Your task to perform on an android device: Play the last video I watched on Youtube Image 0: 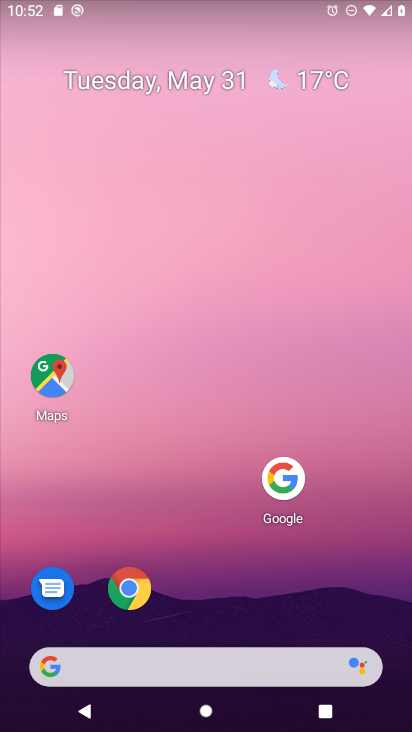
Step 0: drag from (212, 668) to (307, 181)
Your task to perform on an android device: Play the last video I watched on Youtube Image 1: 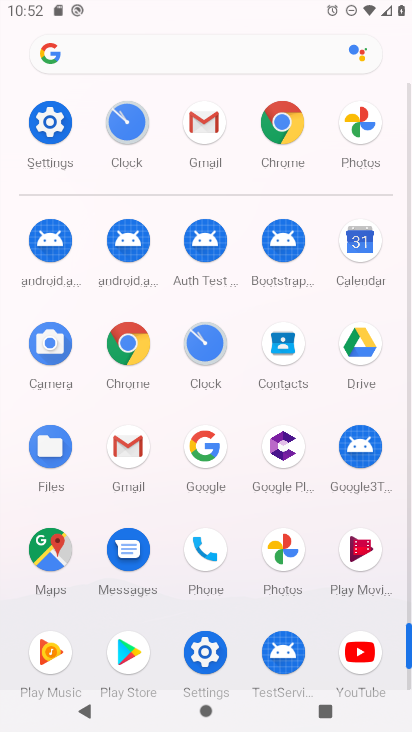
Step 1: click (358, 652)
Your task to perform on an android device: Play the last video I watched on Youtube Image 2: 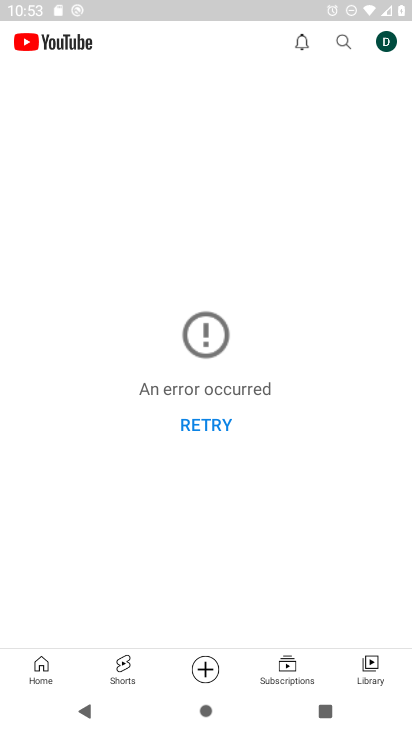
Step 2: click (220, 420)
Your task to perform on an android device: Play the last video I watched on Youtube Image 3: 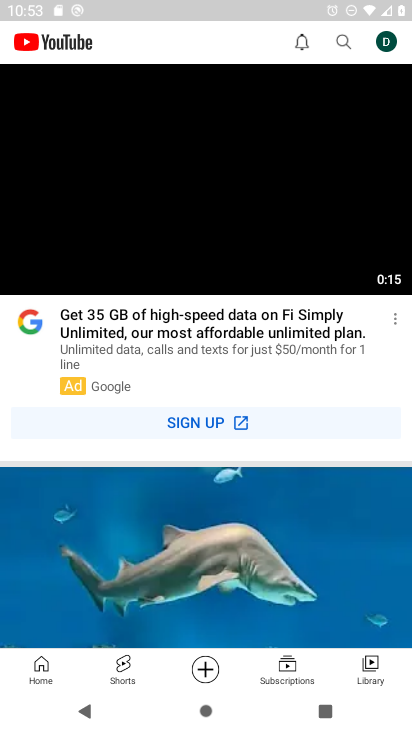
Step 3: click (371, 666)
Your task to perform on an android device: Play the last video I watched on Youtube Image 4: 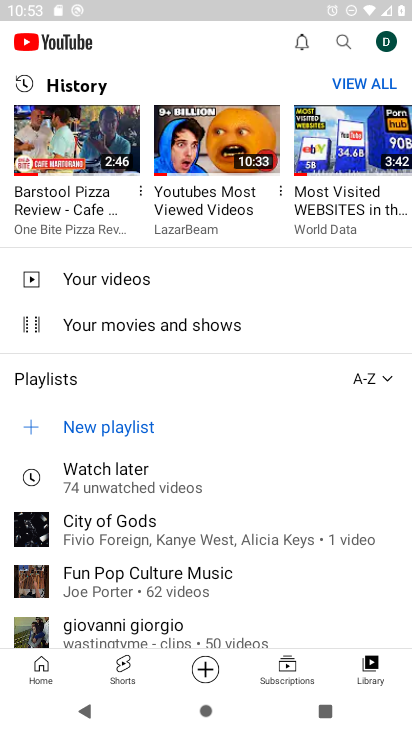
Step 4: click (49, 128)
Your task to perform on an android device: Play the last video I watched on Youtube Image 5: 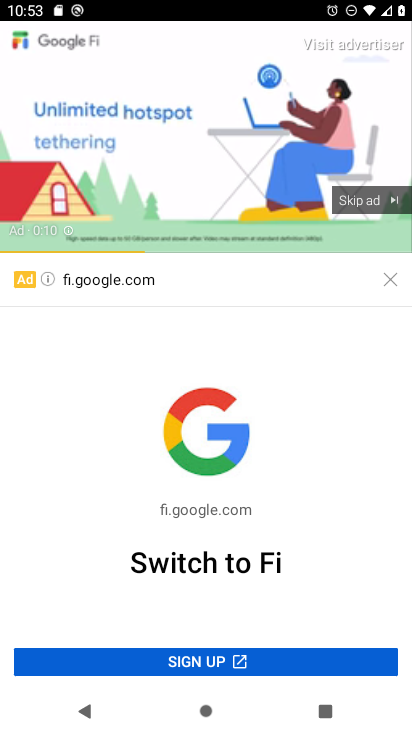
Step 5: click (392, 280)
Your task to perform on an android device: Play the last video I watched on Youtube Image 6: 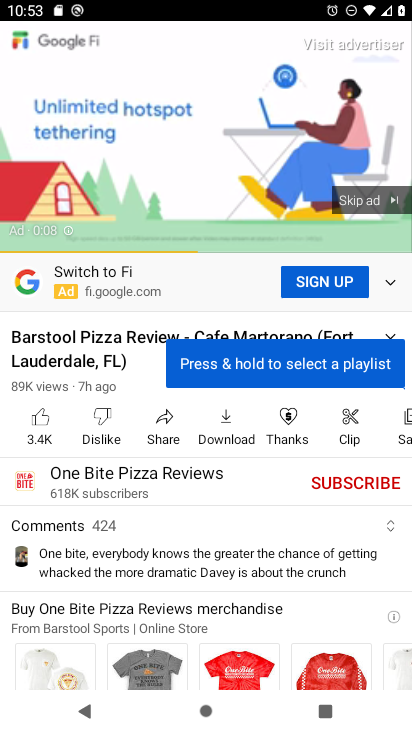
Step 6: click (363, 200)
Your task to perform on an android device: Play the last video I watched on Youtube Image 7: 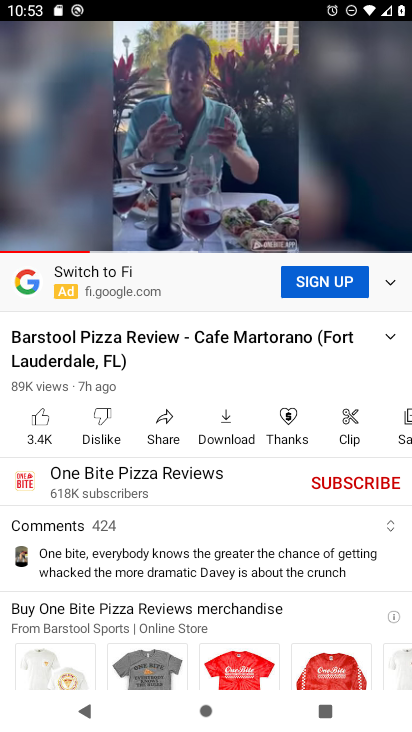
Step 7: click (201, 120)
Your task to perform on an android device: Play the last video I watched on Youtube Image 8: 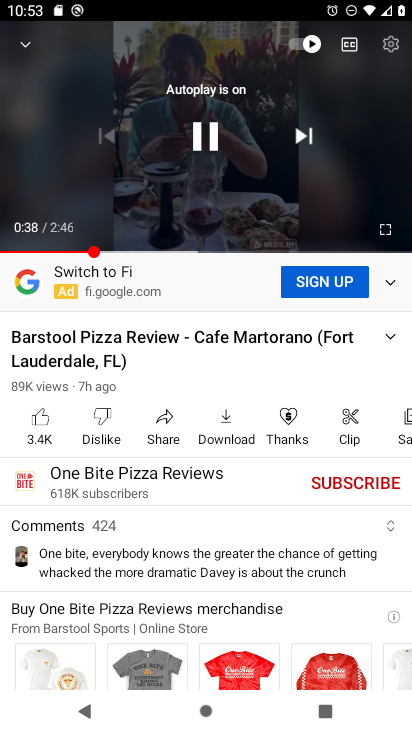
Step 8: click (200, 140)
Your task to perform on an android device: Play the last video I watched on Youtube Image 9: 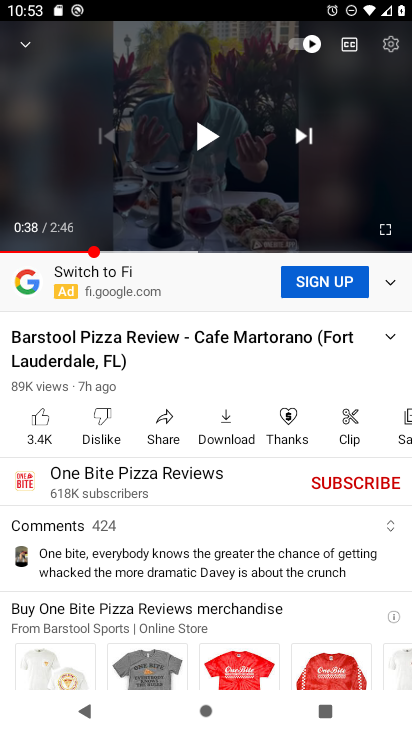
Step 9: task complete